Your task to perform on an android device: Open calendar and show me the second week of next month Image 0: 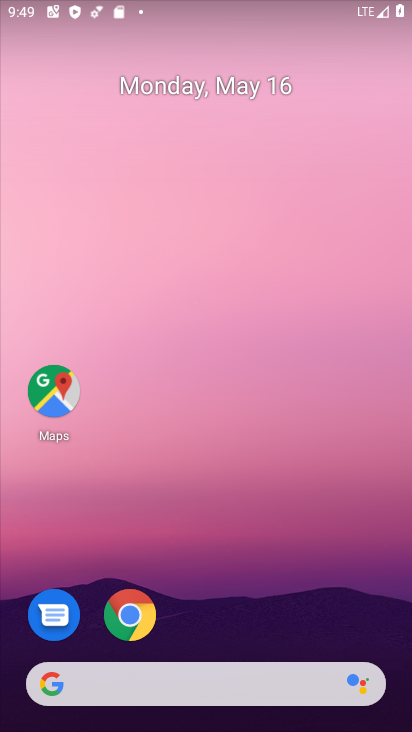
Step 0: drag from (225, 560) to (224, 114)
Your task to perform on an android device: Open calendar and show me the second week of next month Image 1: 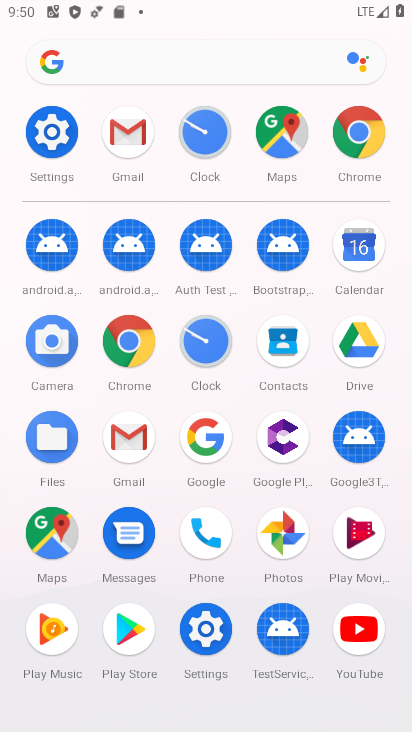
Step 1: click (369, 256)
Your task to perform on an android device: Open calendar and show me the second week of next month Image 2: 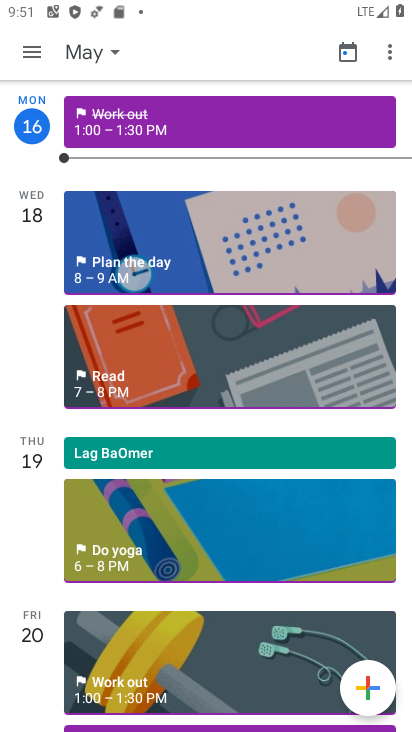
Step 2: click (96, 67)
Your task to perform on an android device: Open calendar and show me the second week of next month Image 3: 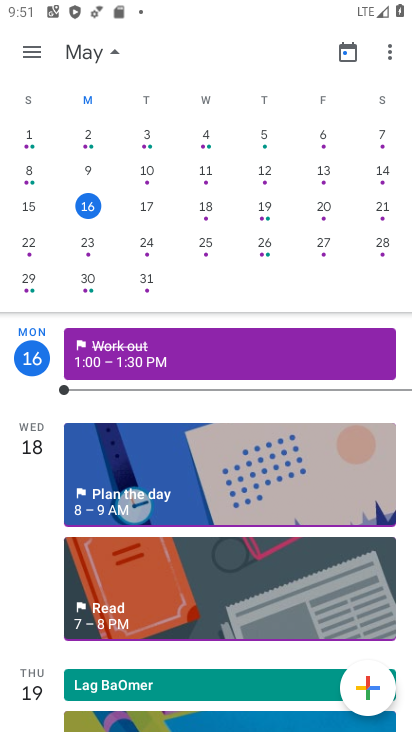
Step 3: drag from (307, 213) to (0, 207)
Your task to perform on an android device: Open calendar and show me the second week of next month Image 4: 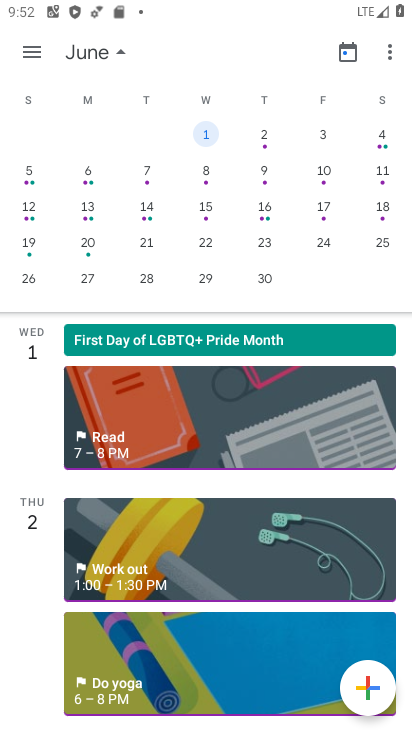
Step 4: click (30, 217)
Your task to perform on an android device: Open calendar and show me the second week of next month Image 5: 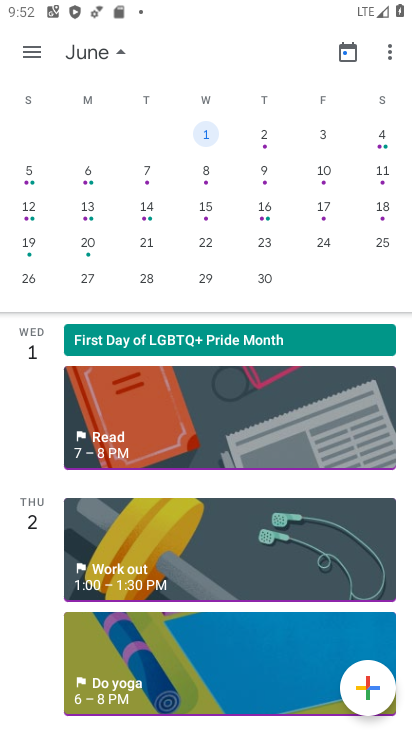
Step 5: click (37, 210)
Your task to perform on an android device: Open calendar and show me the second week of next month Image 6: 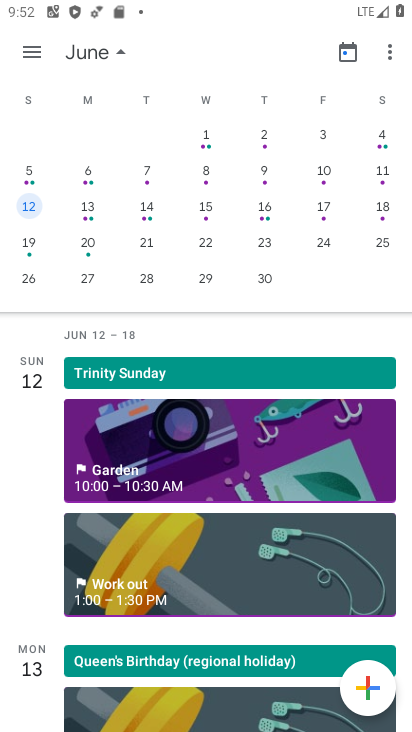
Step 6: task complete